Your task to perform on an android device: open a new tab in the chrome app Image 0: 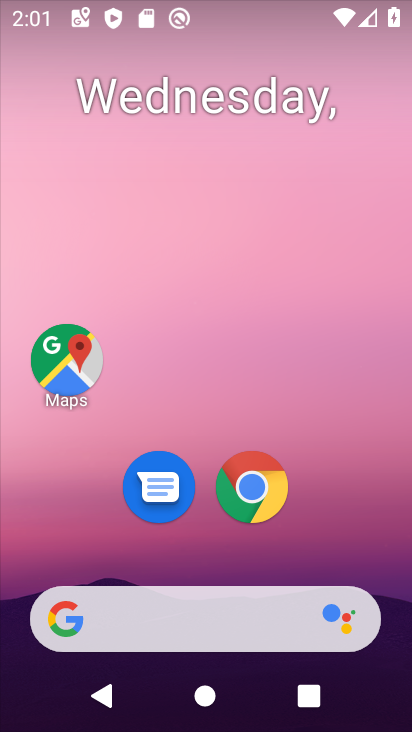
Step 0: click (254, 484)
Your task to perform on an android device: open a new tab in the chrome app Image 1: 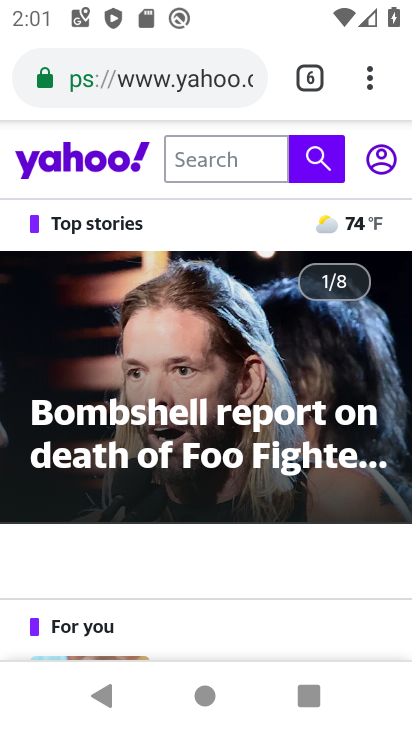
Step 1: click (358, 75)
Your task to perform on an android device: open a new tab in the chrome app Image 2: 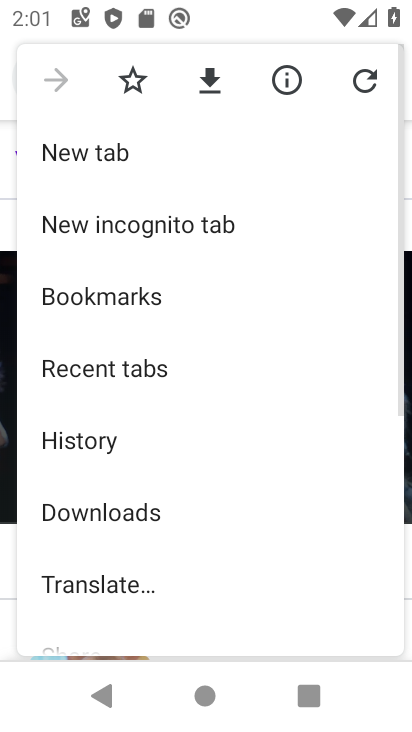
Step 2: click (109, 147)
Your task to perform on an android device: open a new tab in the chrome app Image 3: 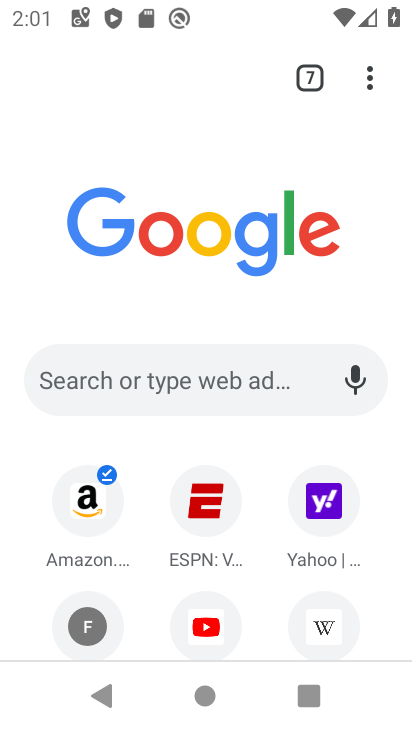
Step 3: task complete